Your task to perform on an android device: Go to accessibility settings Image 0: 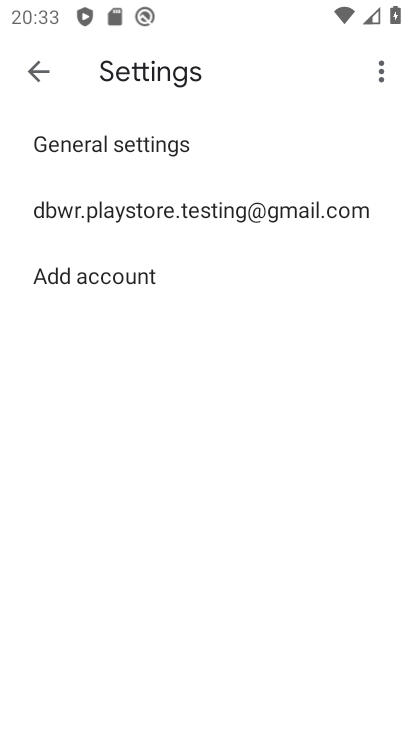
Step 0: press home button
Your task to perform on an android device: Go to accessibility settings Image 1: 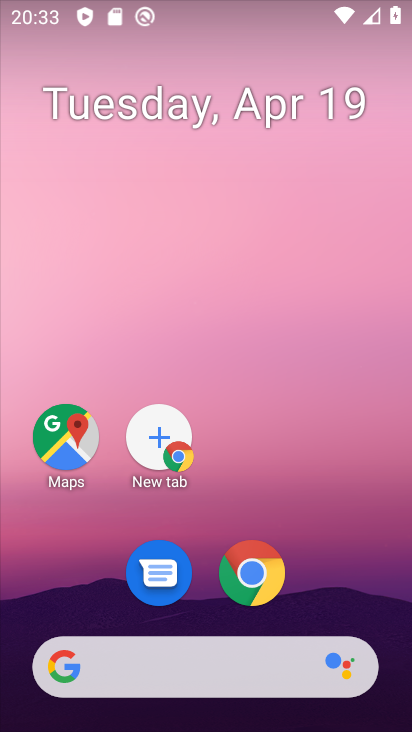
Step 1: drag from (380, 622) to (374, 112)
Your task to perform on an android device: Go to accessibility settings Image 2: 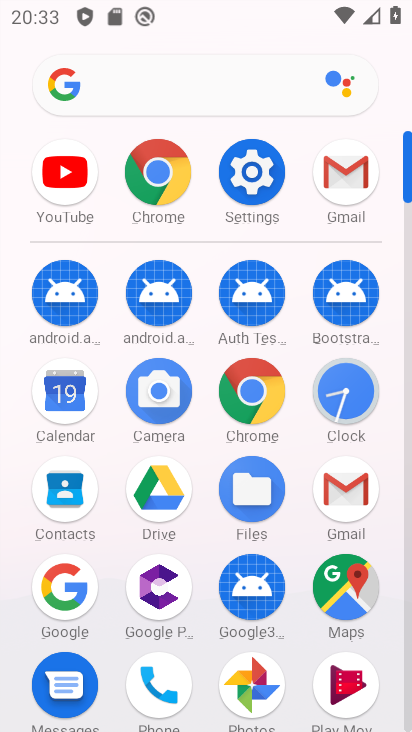
Step 2: click (233, 166)
Your task to perform on an android device: Go to accessibility settings Image 3: 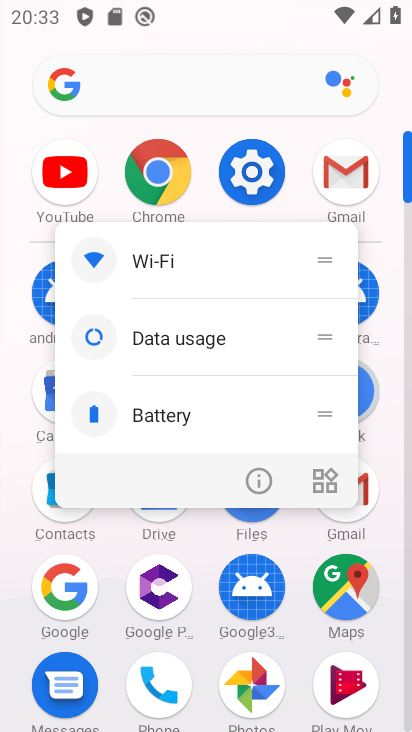
Step 3: click (247, 170)
Your task to perform on an android device: Go to accessibility settings Image 4: 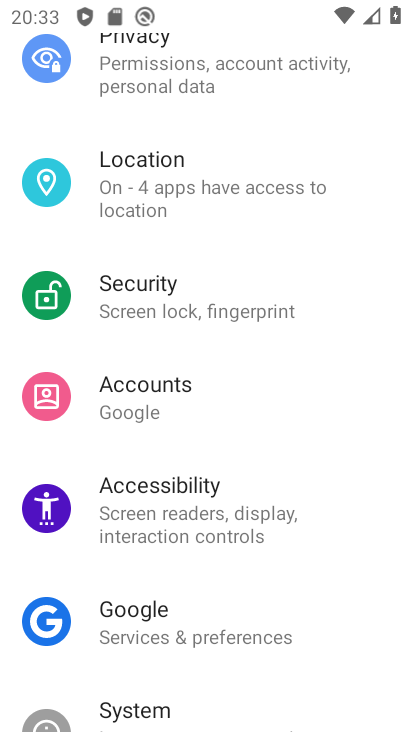
Step 4: click (122, 520)
Your task to perform on an android device: Go to accessibility settings Image 5: 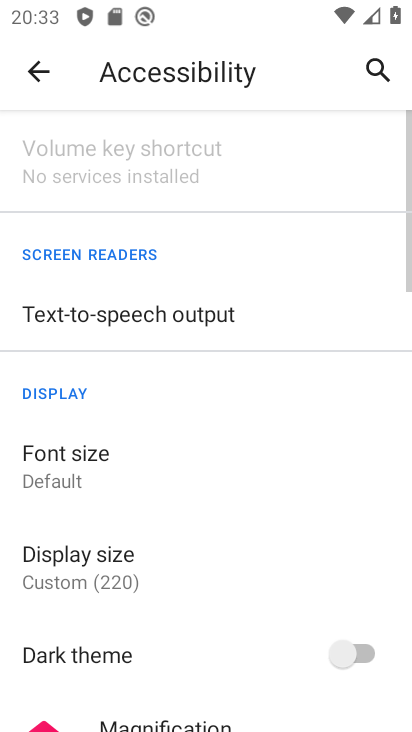
Step 5: task complete